Your task to perform on an android device: Open my contact list Image 0: 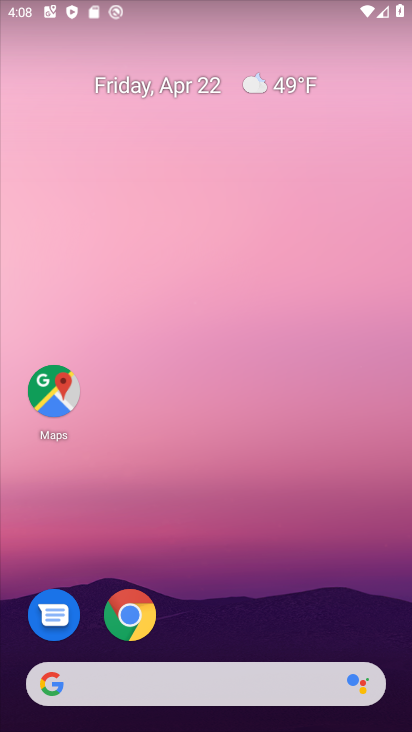
Step 0: drag from (214, 697) to (220, 157)
Your task to perform on an android device: Open my contact list Image 1: 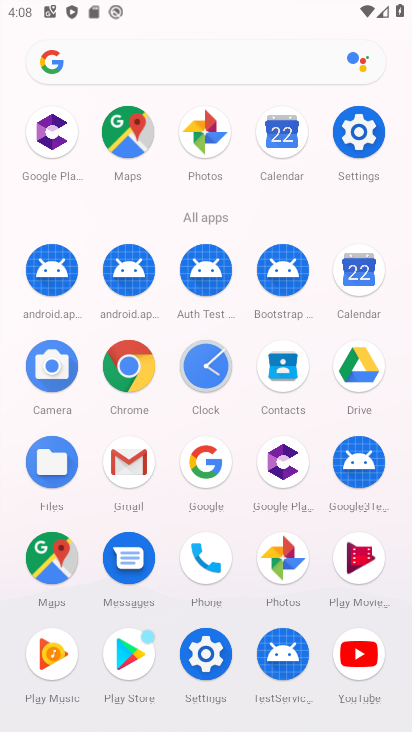
Step 1: click (284, 371)
Your task to perform on an android device: Open my contact list Image 2: 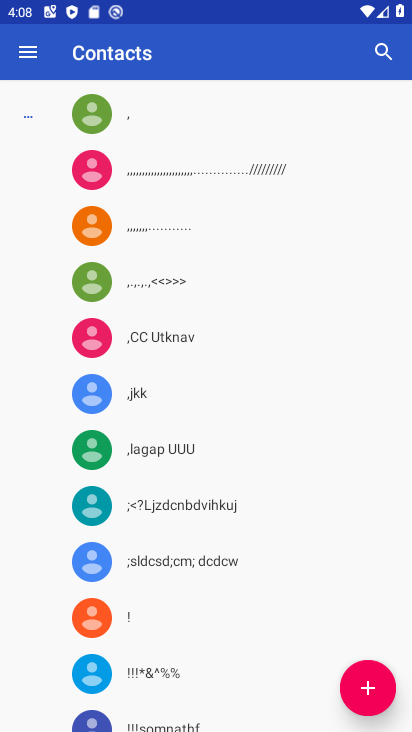
Step 2: task complete